Your task to perform on an android device: turn on translation in the chrome app Image 0: 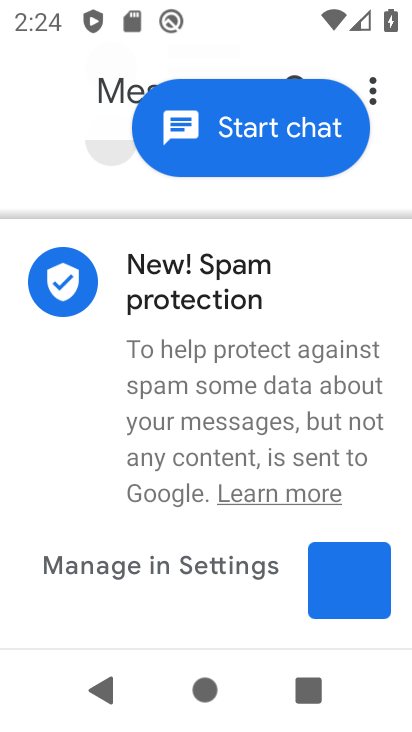
Step 0: press home button
Your task to perform on an android device: turn on translation in the chrome app Image 1: 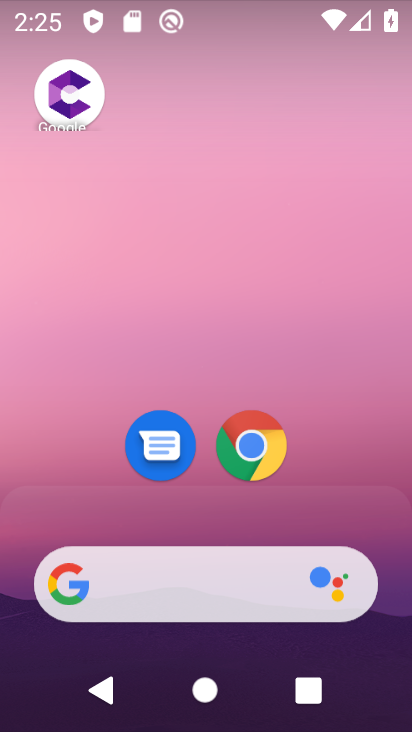
Step 1: drag from (259, 503) to (225, 9)
Your task to perform on an android device: turn on translation in the chrome app Image 2: 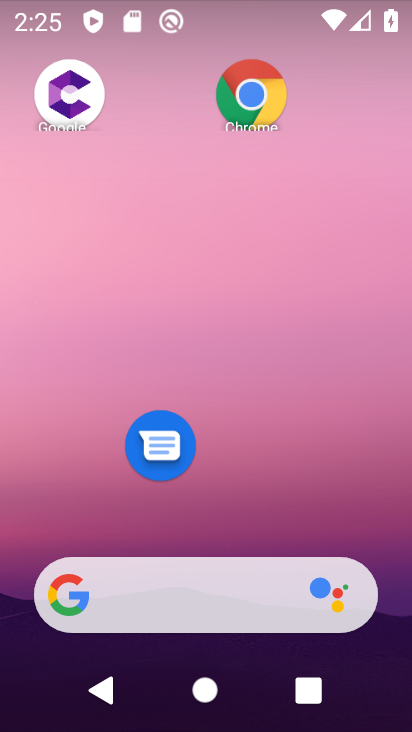
Step 2: click (252, 106)
Your task to perform on an android device: turn on translation in the chrome app Image 3: 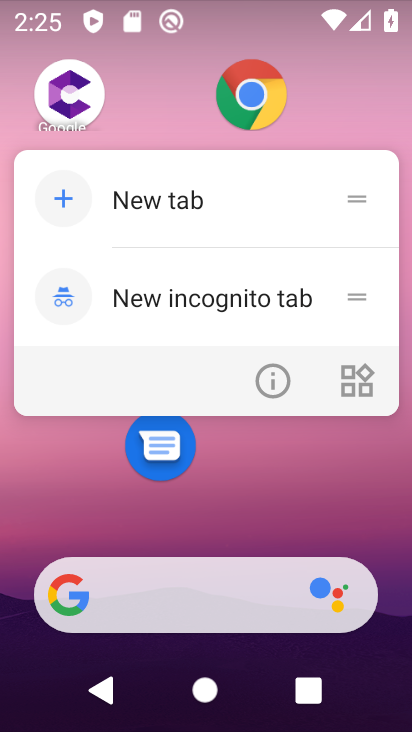
Step 3: click (251, 98)
Your task to perform on an android device: turn on translation in the chrome app Image 4: 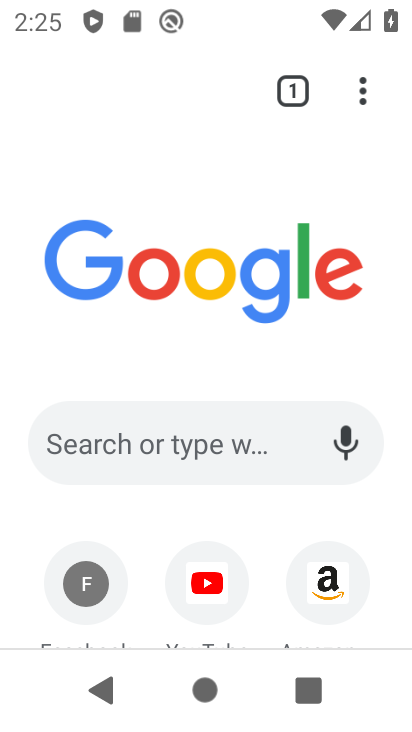
Step 4: click (360, 95)
Your task to perform on an android device: turn on translation in the chrome app Image 5: 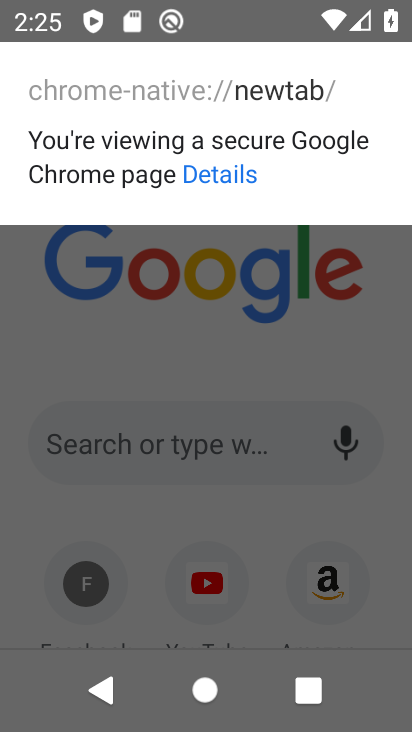
Step 5: click (307, 311)
Your task to perform on an android device: turn on translation in the chrome app Image 6: 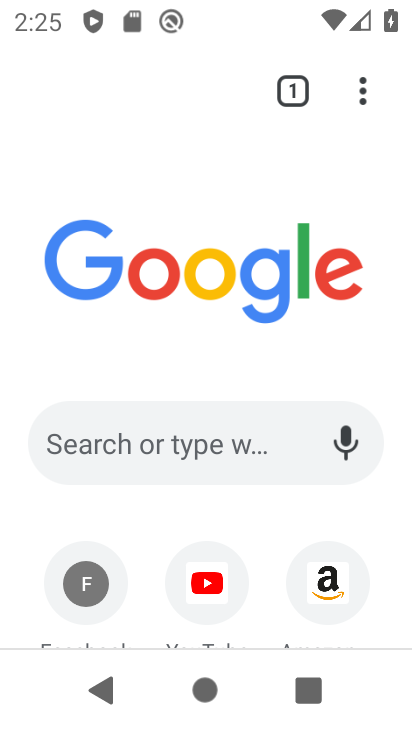
Step 6: click (365, 91)
Your task to perform on an android device: turn on translation in the chrome app Image 7: 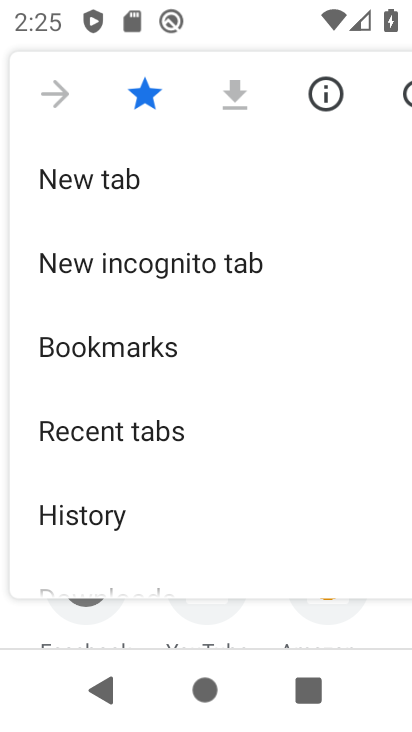
Step 7: drag from (160, 463) to (206, 185)
Your task to perform on an android device: turn on translation in the chrome app Image 8: 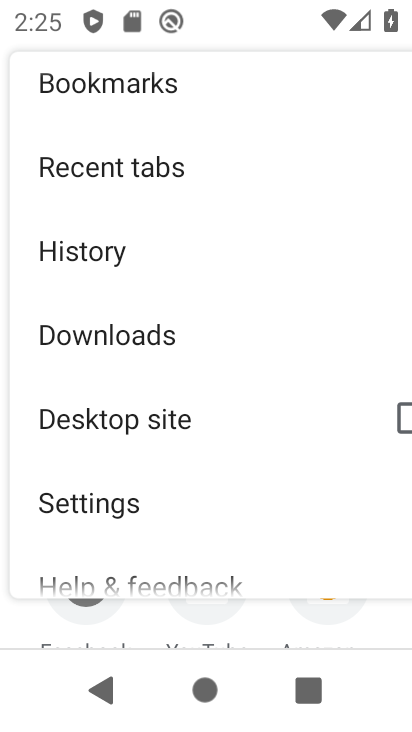
Step 8: click (113, 504)
Your task to perform on an android device: turn on translation in the chrome app Image 9: 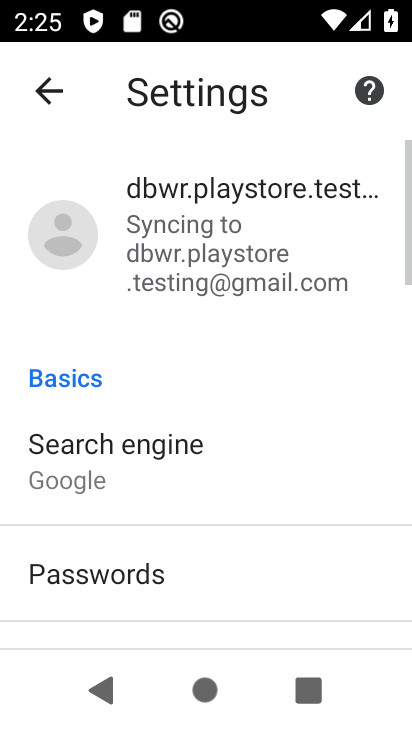
Step 9: drag from (148, 566) to (215, 247)
Your task to perform on an android device: turn on translation in the chrome app Image 10: 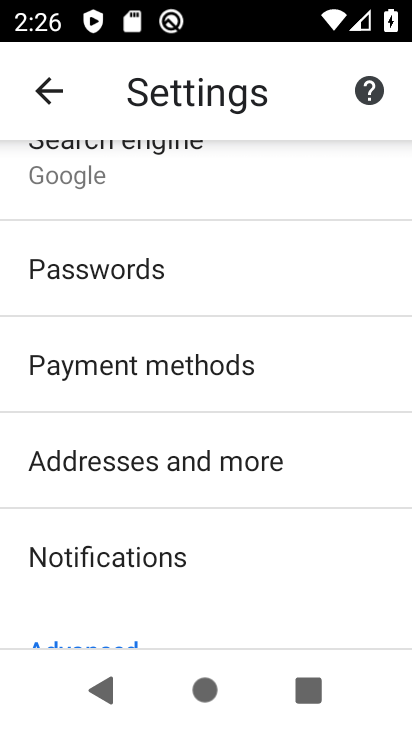
Step 10: drag from (193, 537) to (252, 253)
Your task to perform on an android device: turn on translation in the chrome app Image 11: 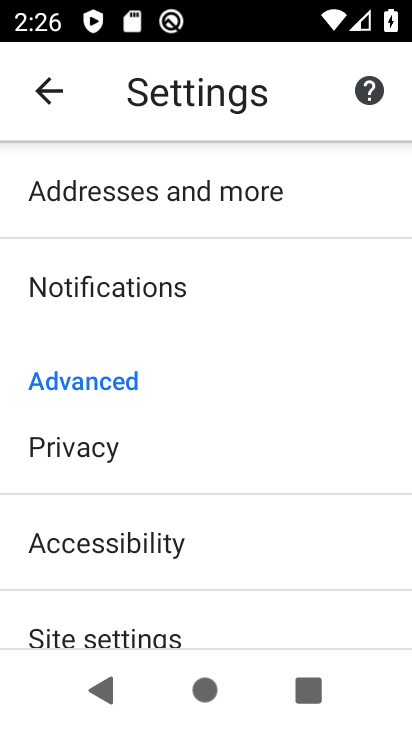
Step 11: drag from (191, 590) to (240, 190)
Your task to perform on an android device: turn on translation in the chrome app Image 12: 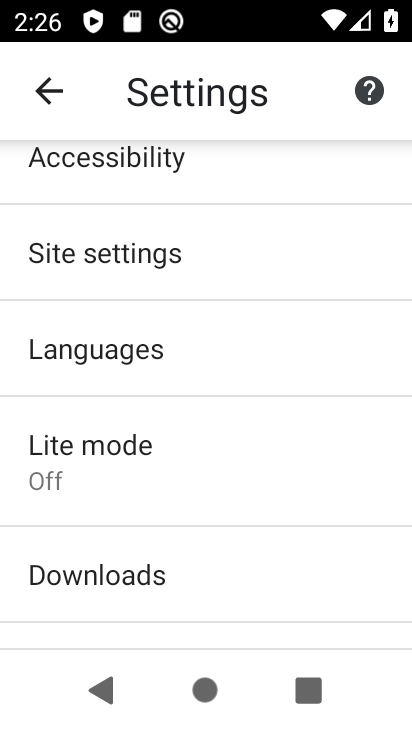
Step 12: click (144, 354)
Your task to perform on an android device: turn on translation in the chrome app Image 13: 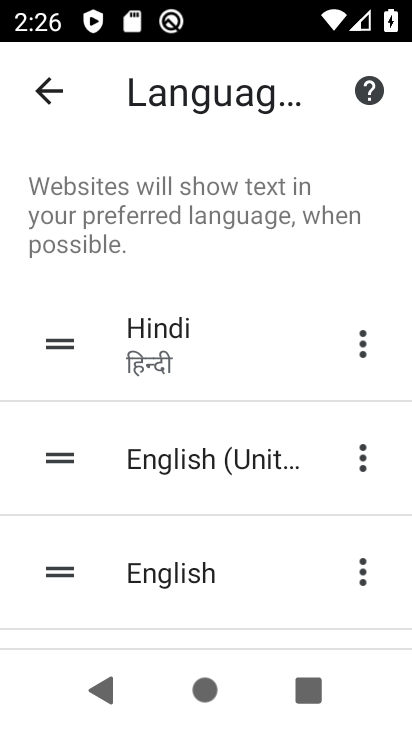
Step 13: drag from (212, 550) to (298, 192)
Your task to perform on an android device: turn on translation in the chrome app Image 14: 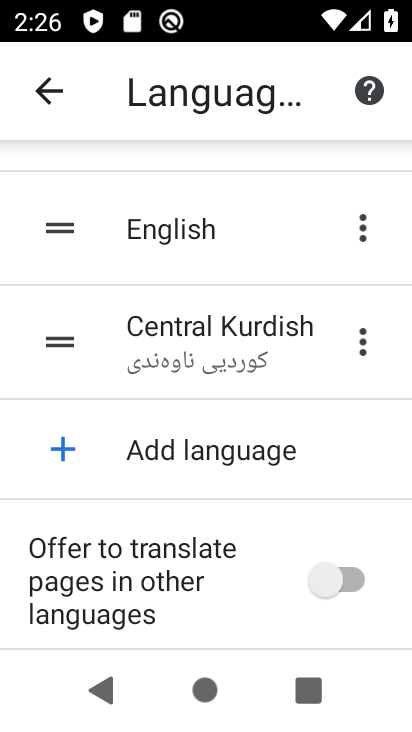
Step 14: drag from (228, 581) to (273, 348)
Your task to perform on an android device: turn on translation in the chrome app Image 15: 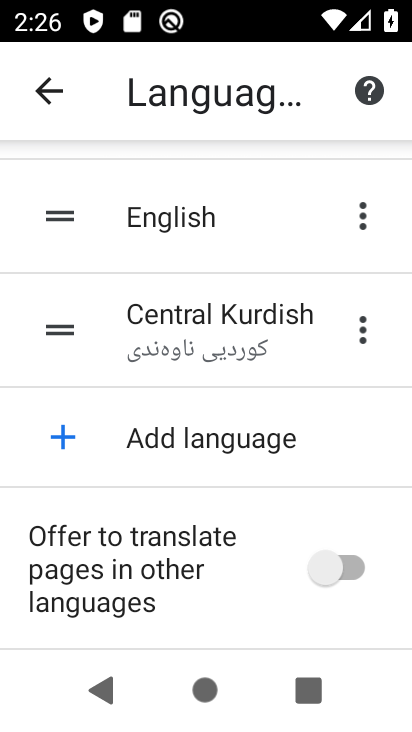
Step 15: click (346, 564)
Your task to perform on an android device: turn on translation in the chrome app Image 16: 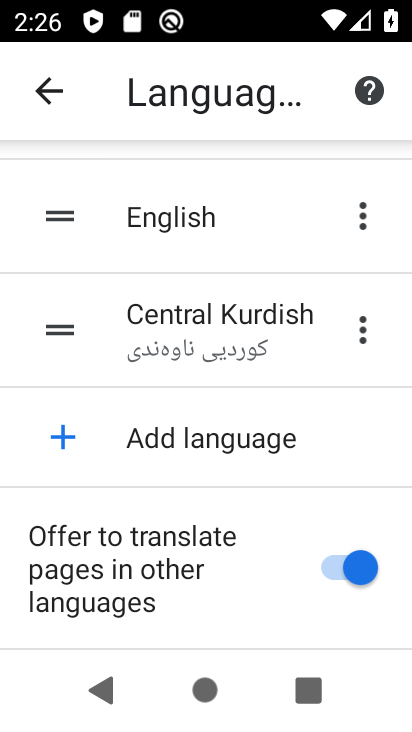
Step 16: task complete